Your task to perform on an android device: Turn off the flashlight Image 0: 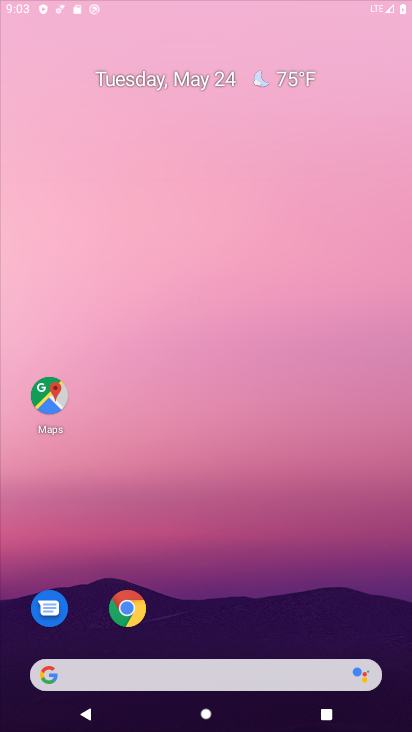
Step 0: drag from (290, 517) to (202, 34)
Your task to perform on an android device: Turn off the flashlight Image 1: 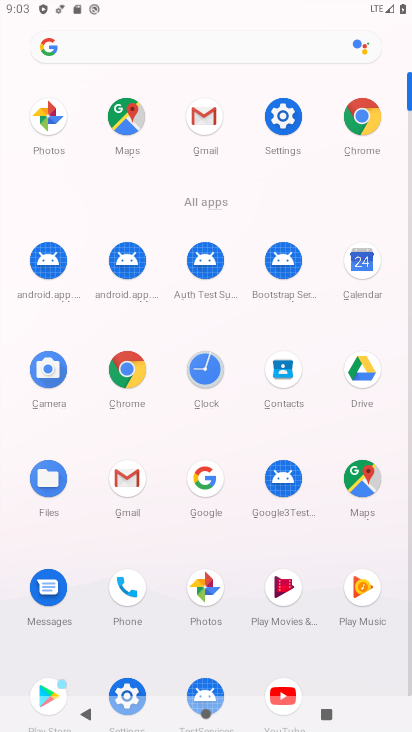
Step 1: task complete